Your task to perform on an android device: What is the recent news? Image 0: 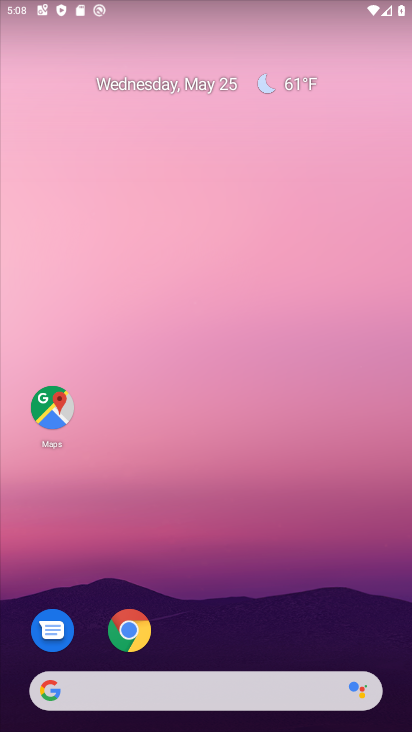
Step 0: click (172, 695)
Your task to perform on an android device: What is the recent news? Image 1: 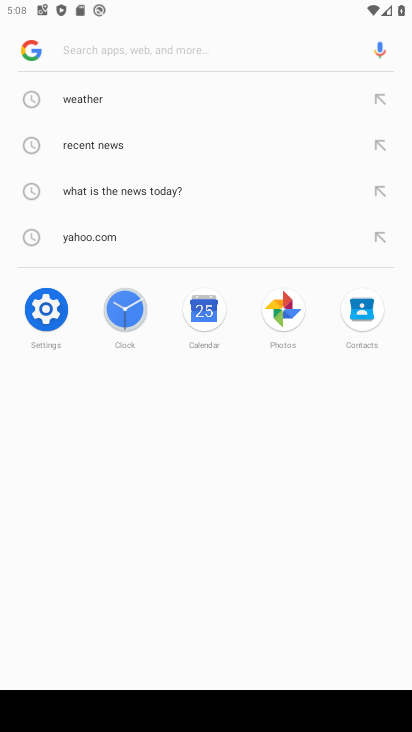
Step 1: click (111, 137)
Your task to perform on an android device: What is the recent news? Image 2: 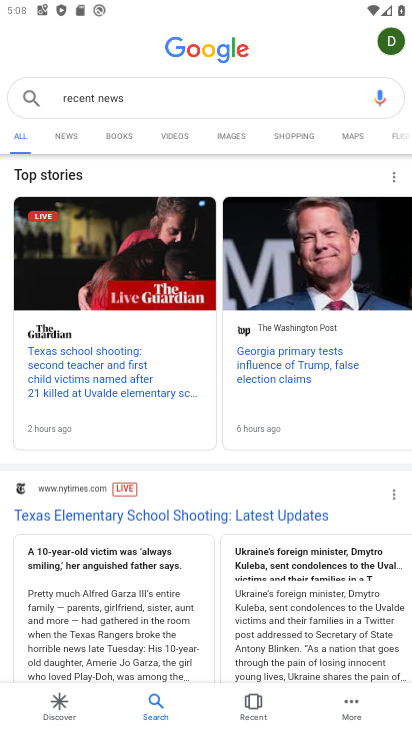
Step 2: task complete